Your task to perform on an android device: check out phone information Image 0: 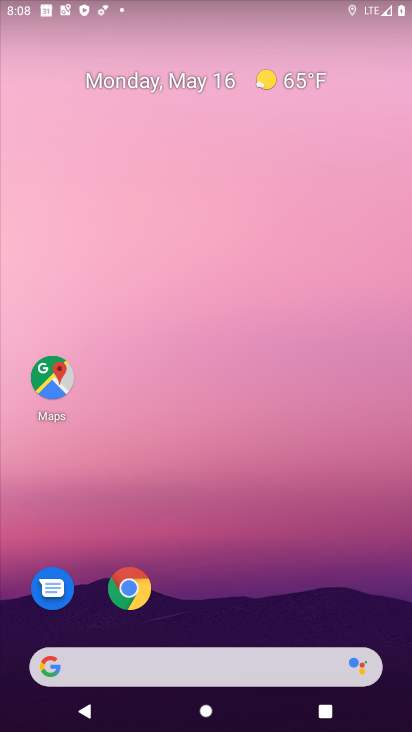
Step 0: drag from (227, 575) to (227, 30)
Your task to perform on an android device: check out phone information Image 1: 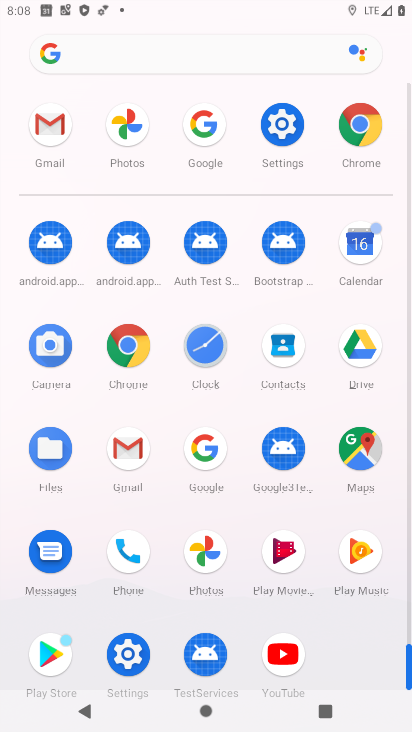
Step 1: drag from (11, 569) to (14, 337)
Your task to perform on an android device: check out phone information Image 2: 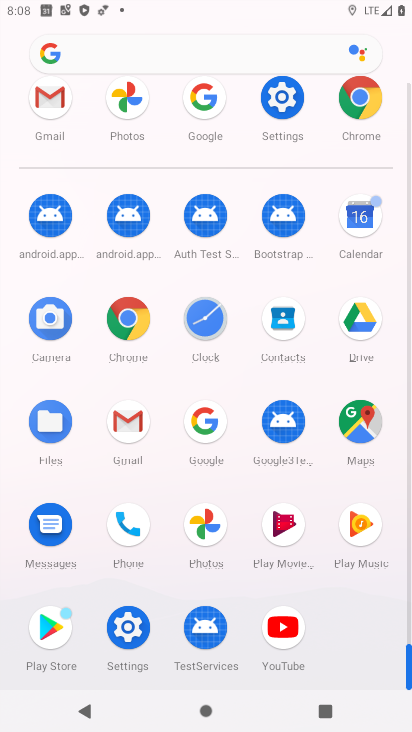
Step 2: click (126, 626)
Your task to perform on an android device: check out phone information Image 3: 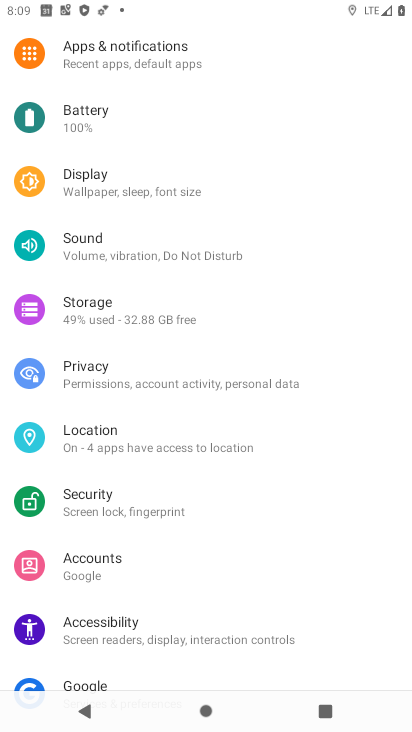
Step 3: drag from (272, 582) to (275, 137)
Your task to perform on an android device: check out phone information Image 4: 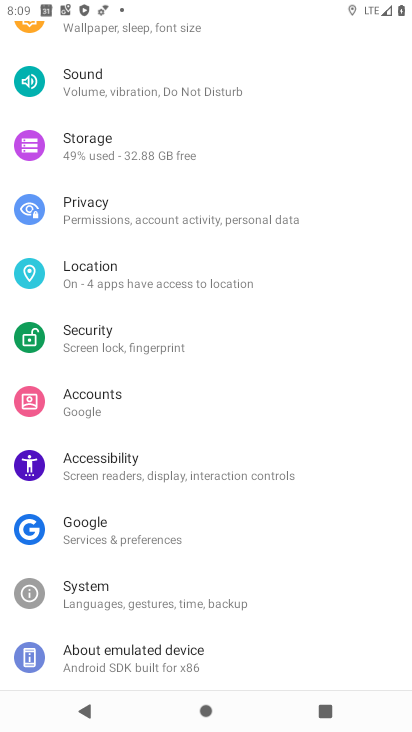
Step 4: click (146, 630)
Your task to perform on an android device: check out phone information Image 5: 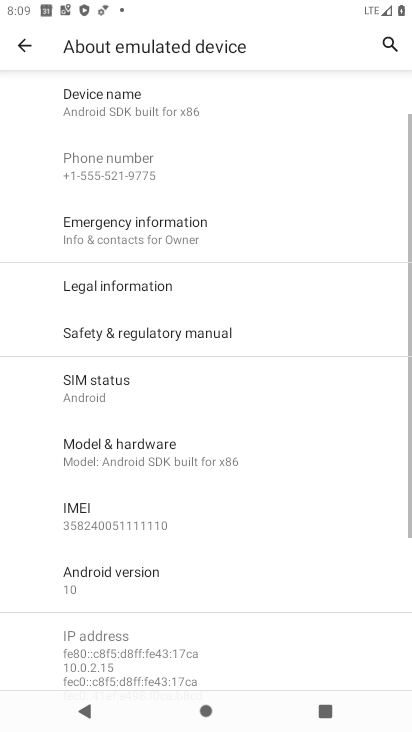
Step 5: task complete